Your task to perform on an android device: check battery use Image 0: 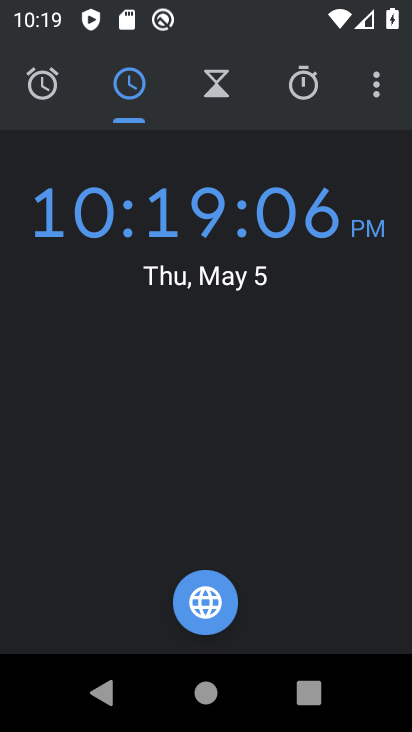
Step 0: press home button
Your task to perform on an android device: check battery use Image 1: 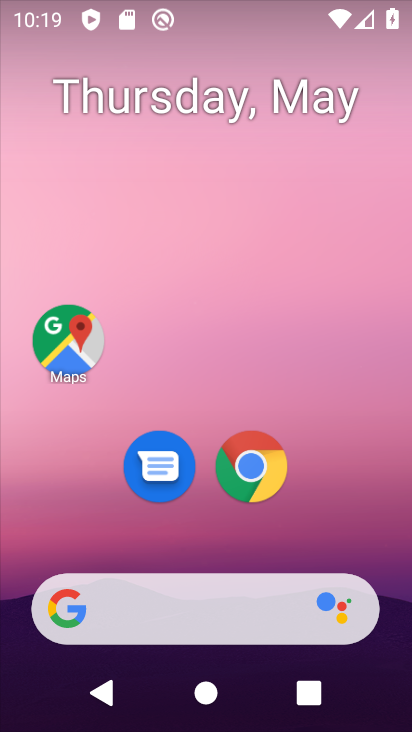
Step 1: drag from (363, 518) to (294, 62)
Your task to perform on an android device: check battery use Image 2: 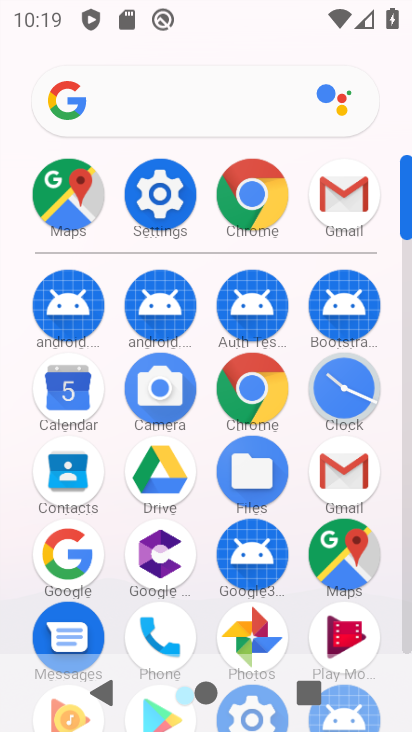
Step 2: click (170, 175)
Your task to perform on an android device: check battery use Image 3: 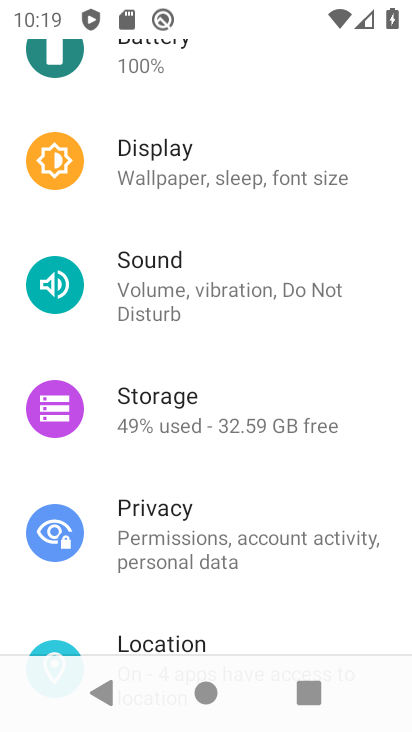
Step 3: drag from (239, 216) to (260, 522)
Your task to perform on an android device: check battery use Image 4: 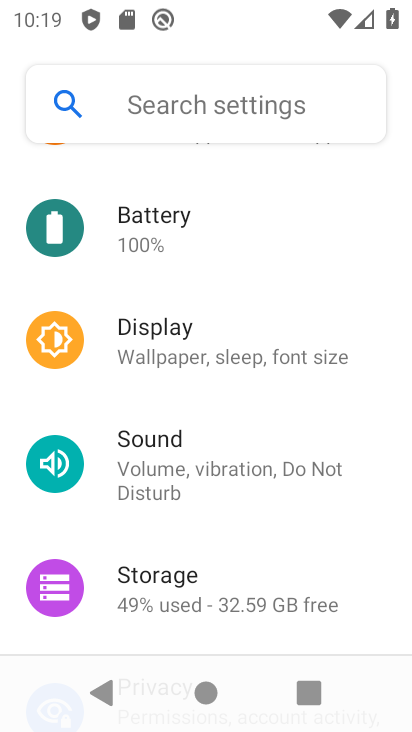
Step 4: click (193, 246)
Your task to perform on an android device: check battery use Image 5: 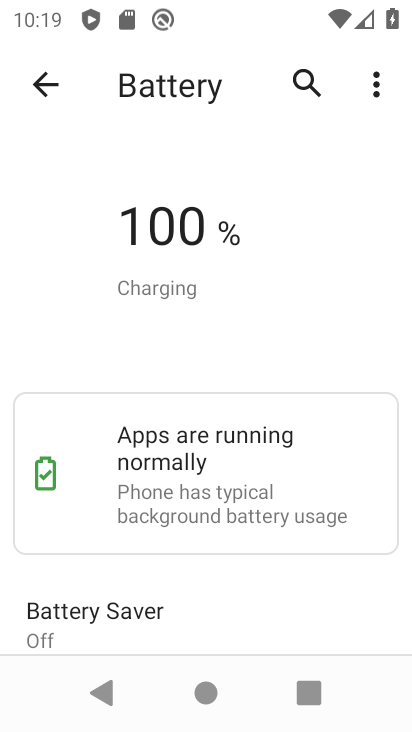
Step 5: click (375, 83)
Your task to perform on an android device: check battery use Image 6: 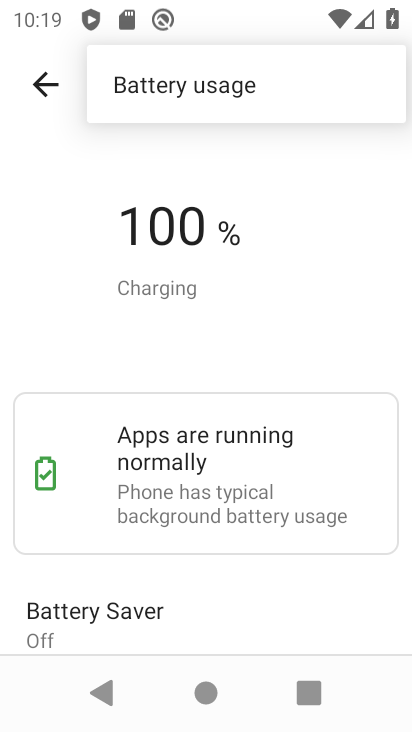
Step 6: click (300, 87)
Your task to perform on an android device: check battery use Image 7: 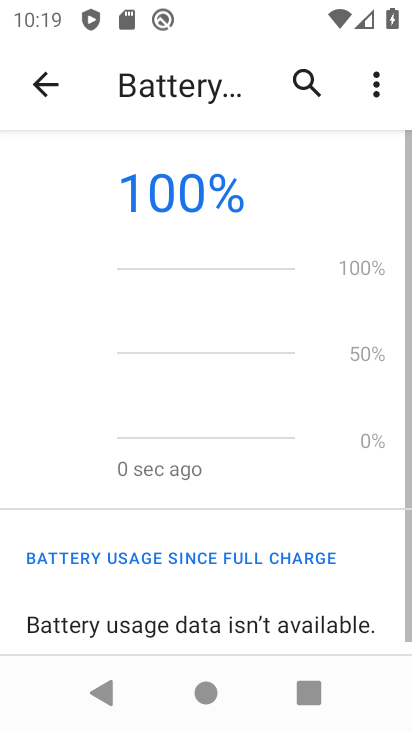
Step 7: task complete